Your task to perform on an android device: Open privacy settings Image 0: 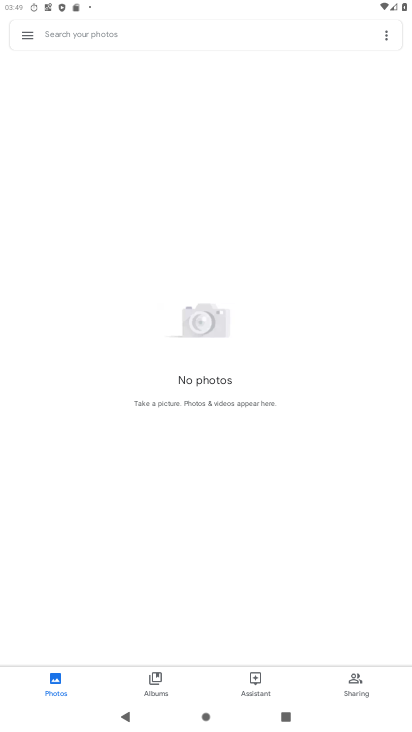
Step 0: press home button
Your task to perform on an android device: Open privacy settings Image 1: 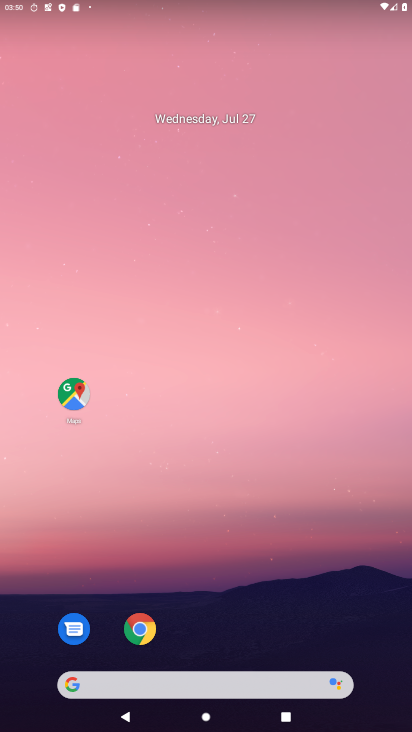
Step 1: drag from (266, 586) to (251, 100)
Your task to perform on an android device: Open privacy settings Image 2: 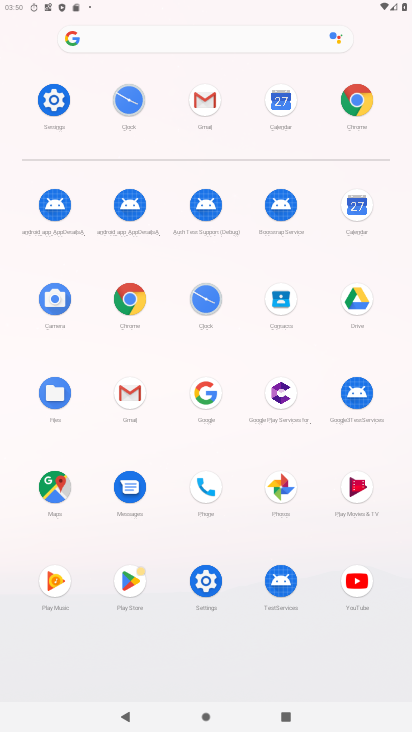
Step 2: click (64, 102)
Your task to perform on an android device: Open privacy settings Image 3: 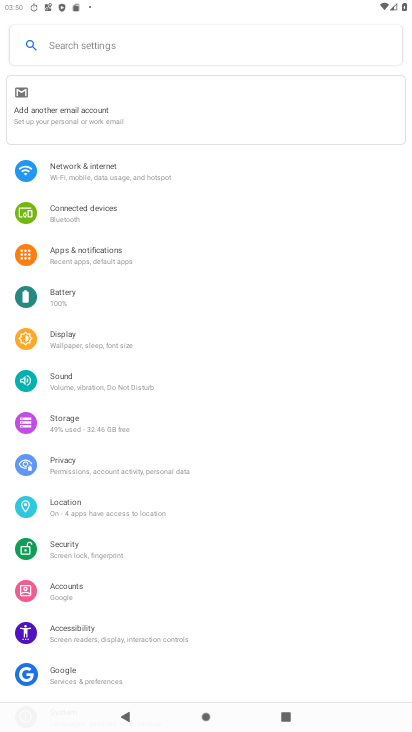
Step 3: click (124, 472)
Your task to perform on an android device: Open privacy settings Image 4: 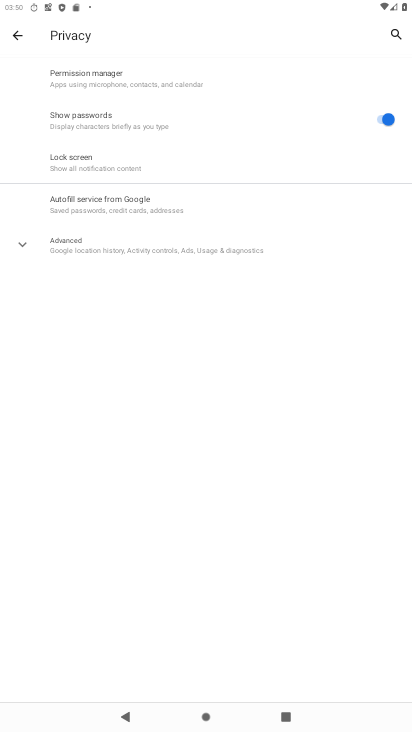
Step 4: click (238, 264)
Your task to perform on an android device: Open privacy settings Image 5: 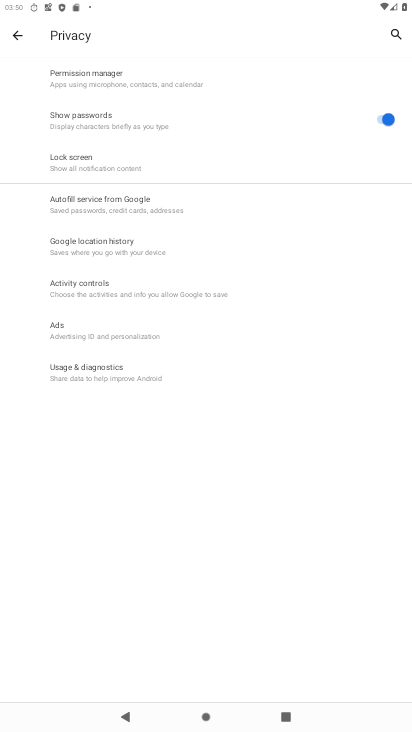
Step 5: task complete